Your task to perform on an android device: Go to Google maps Image 0: 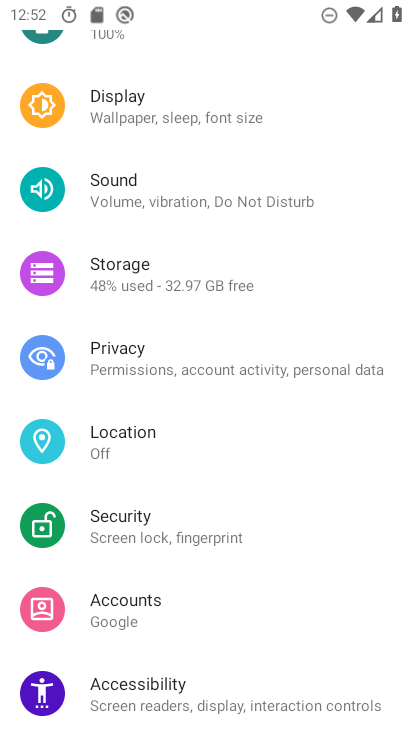
Step 0: press home button
Your task to perform on an android device: Go to Google maps Image 1: 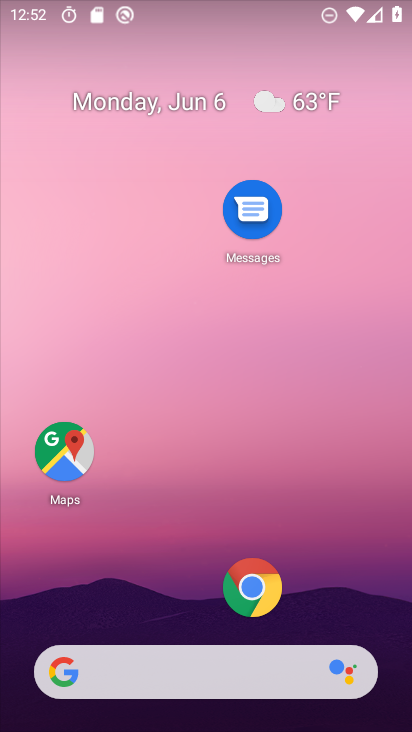
Step 1: click (68, 449)
Your task to perform on an android device: Go to Google maps Image 2: 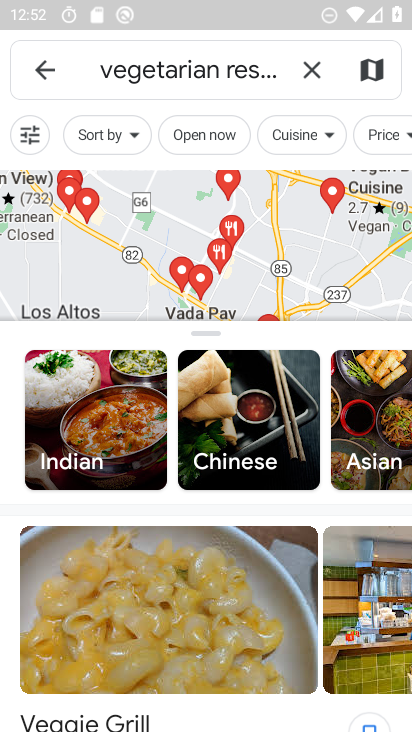
Step 2: task complete